Your task to perform on an android device: Go to display settings Image 0: 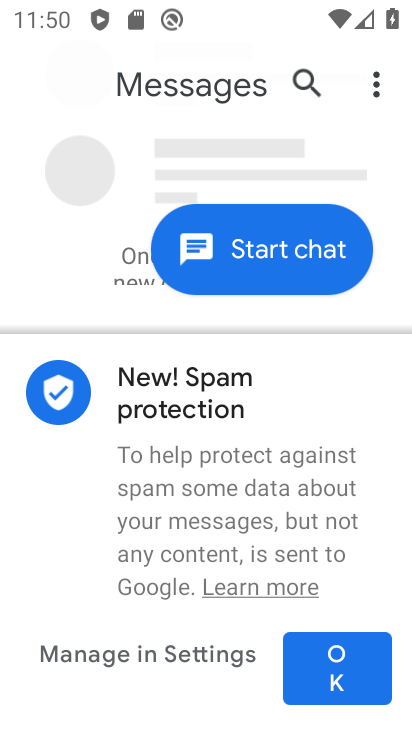
Step 0: press home button
Your task to perform on an android device: Go to display settings Image 1: 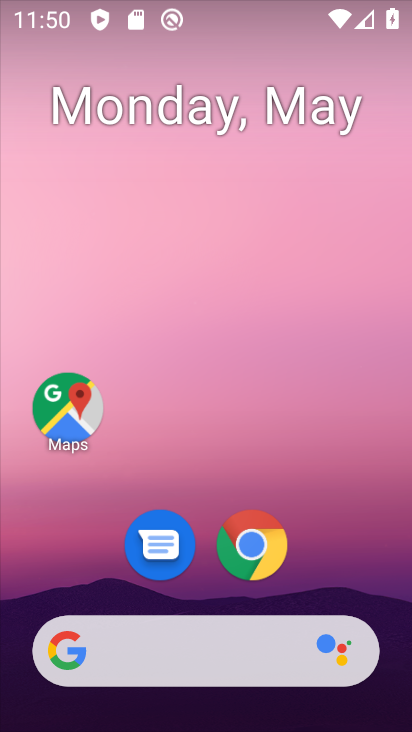
Step 1: drag from (202, 594) to (186, 175)
Your task to perform on an android device: Go to display settings Image 2: 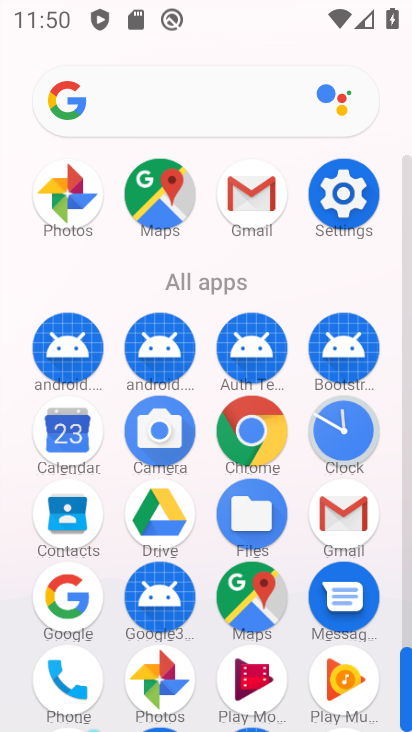
Step 2: click (341, 191)
Your task to perform on an android device: Go to display settings Image 3: 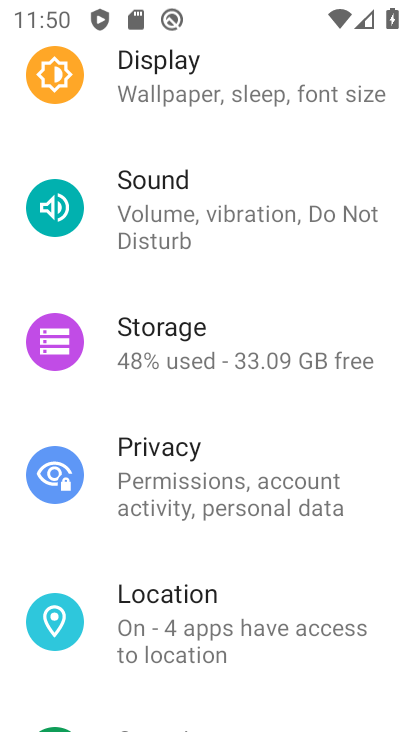
Step 3: click (200, 104)
Your task to perform on an android device: Go to display settings Image 4: 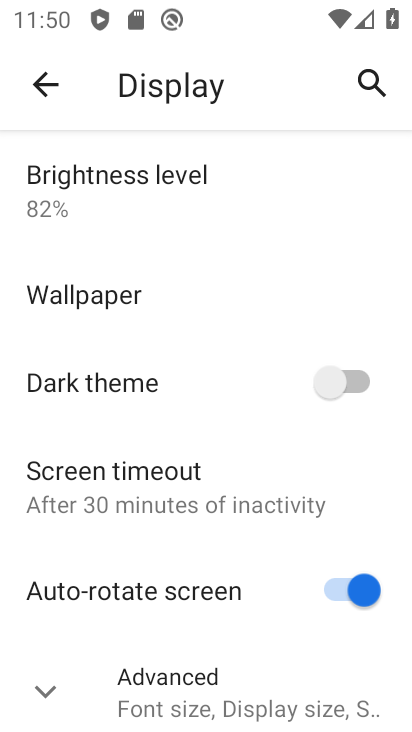
Step 4: task complete